Your task to perform on an android device: change the clock display to analog Image 0: 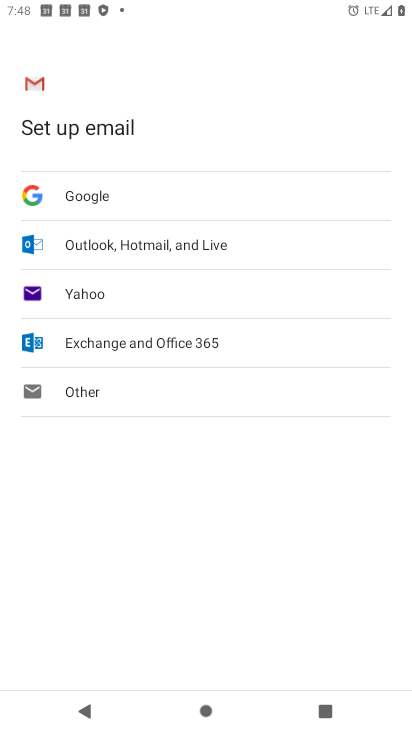
Step 0: press home button
Your task to perform on an android device: change the clock display to analog Image 1: 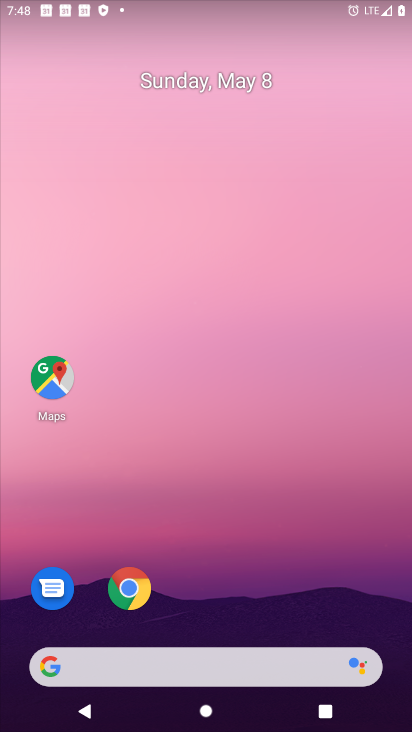
Step 1: drag from (215, 661) to (332, 53)
Your task to perform on an android device: change the clock display to analog Image 2: 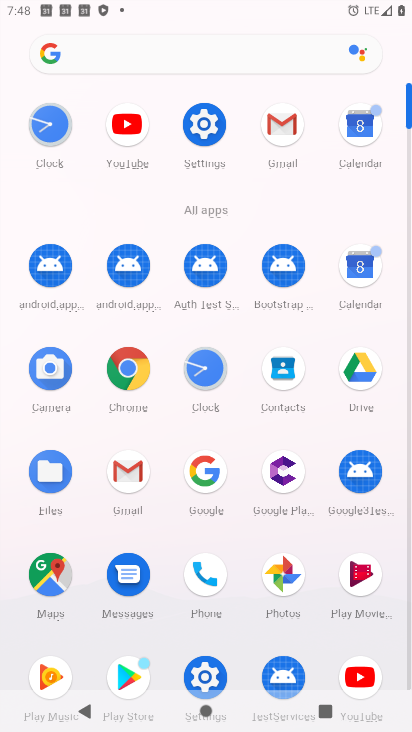
Step 2: click (55, 129)
Your task to perform on an android device: change the clock display to analog Image 3: 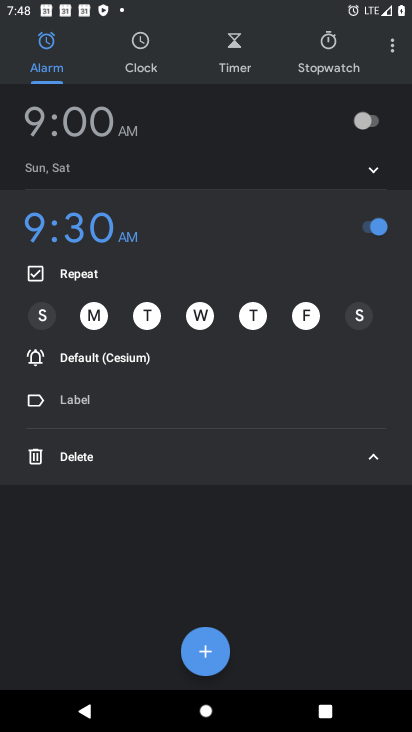
Step 3: click (396, 44)
Your task to perform on an android device: change the clock display to analog Image 4: 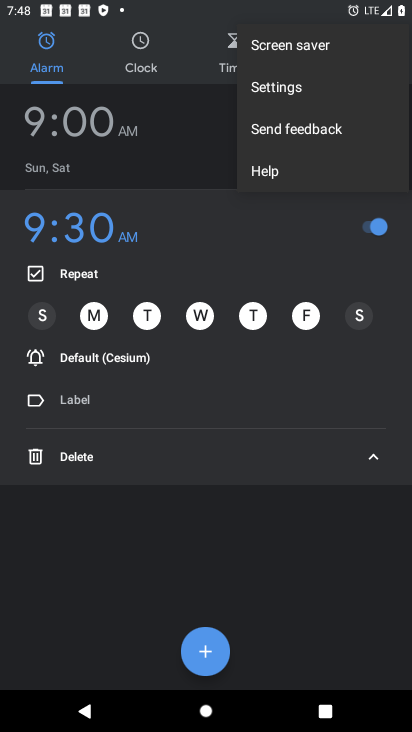
Step 4: click (287, 89)
Your task to perform on an android device: change the clock display to analog Image 5: 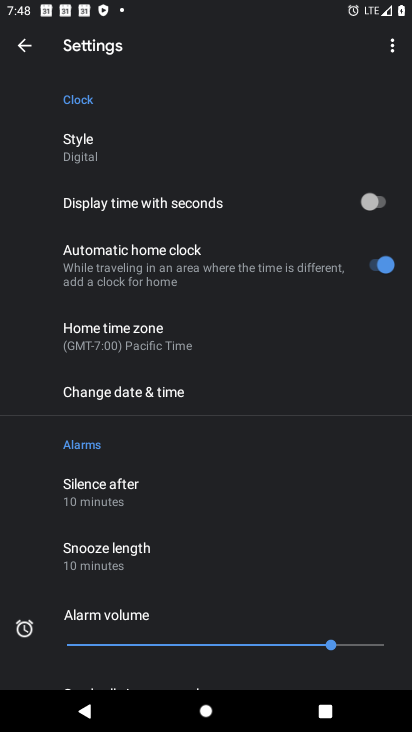
Step 5: click (91, 141)
Your task to perform on an android device: change the clock display to analog Image 6: 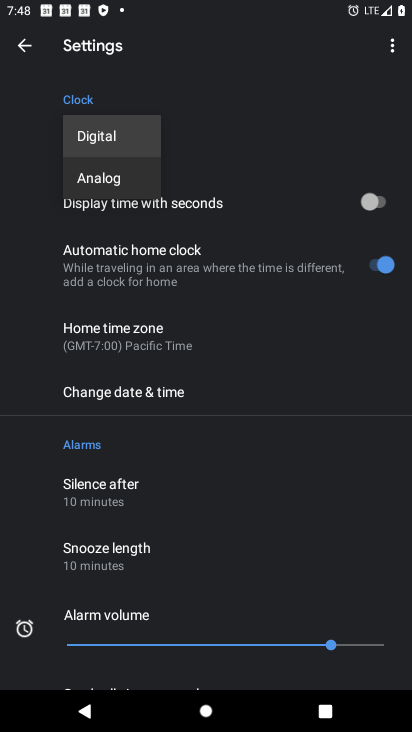
Step 6: click (112, 175)
Your task to perform on an android device: change the clock display to analog Image 7: 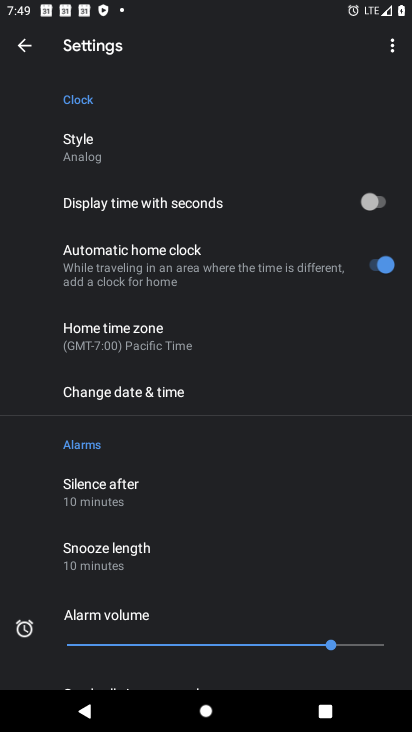
Step 7: task complete